Your task to perform on an android device: Open the phone app and click the voicemail tab. Image 0: 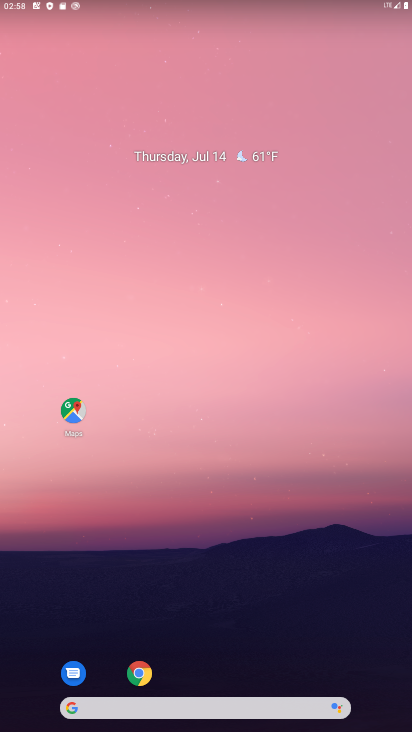
Step 0: click (232, 226)
Your task to perform on an android device: Open the phone app and click the voicemail tab. Image 1: 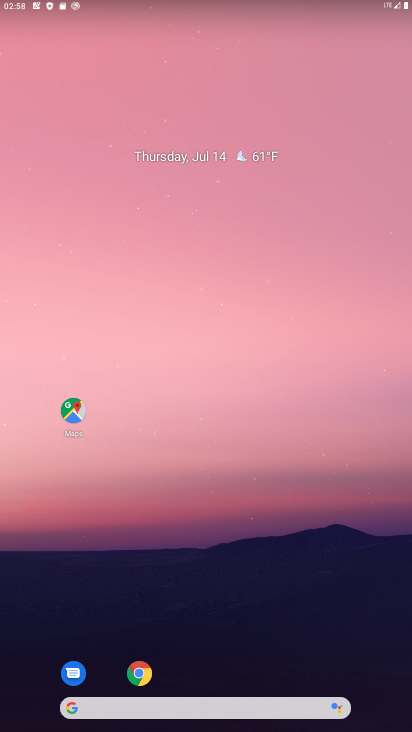
Step 1: drag from (236, 538) to (263, 191)
Your task to perform on an android device: Open the phone app and click the voicemail tab. Image 2: 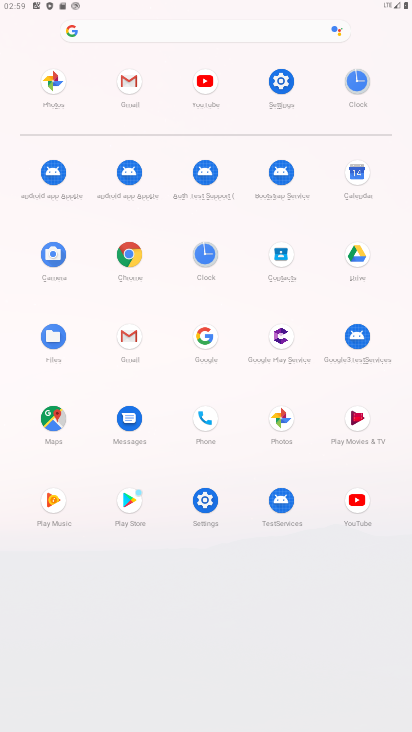
Step 2: click (202, 422)
Your task to perform on an android device: Open the phone app and click the voicemail tab. Image 3: 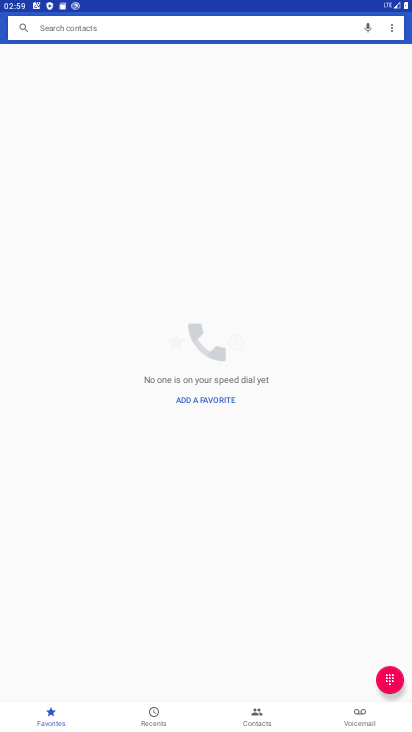
Step 3: click (373, 710)
Your task to perform on an android device: Open the phone app and click the voicemail tab. Image 4: 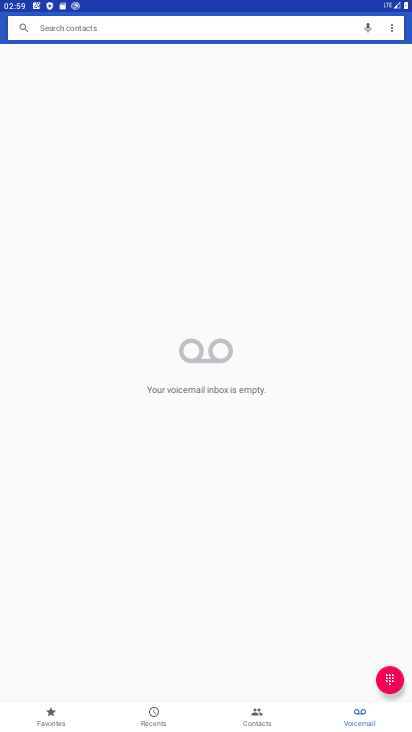
Step 4: click (359, 722)
Your task to perform on an android device: Open the phone app and click the voicemail tab. Image 5: 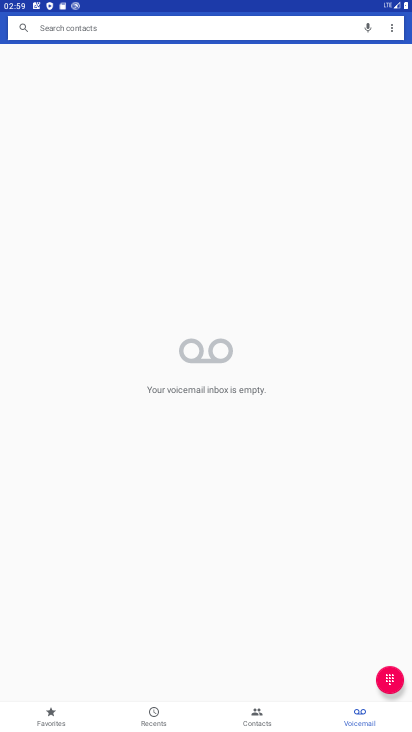
Step 5: task complete